Your task to perform on an android device: toggle javascript in the chrome app Image 0: 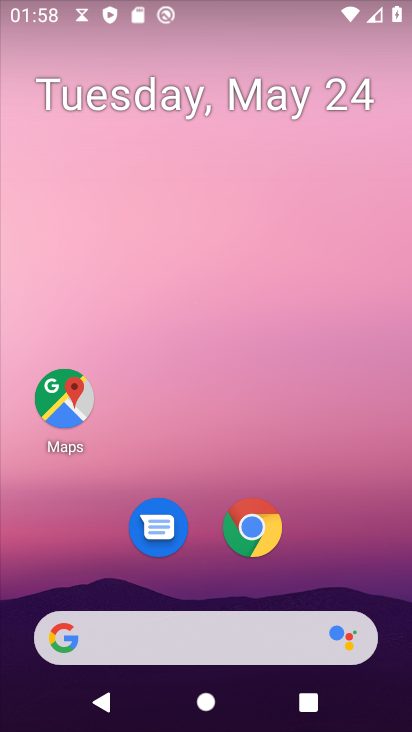
Step 0: press home button
Your task to perform on an android device: toggle javascript in the chrome app Image 1: 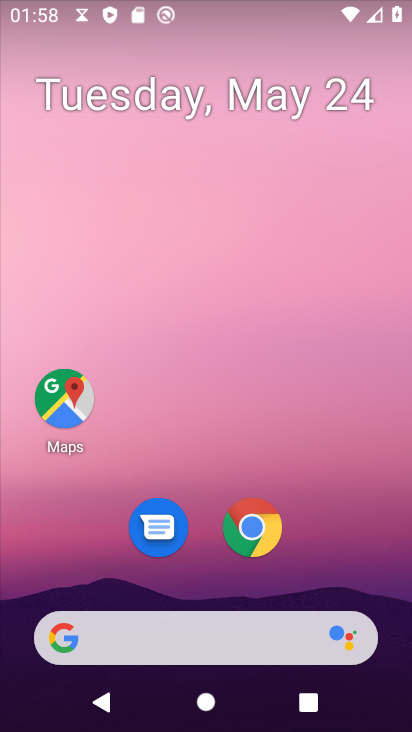
Step 1: click (243, 534)
Your task to perform on an android device: toggle javascript in the chrome app Image 2: 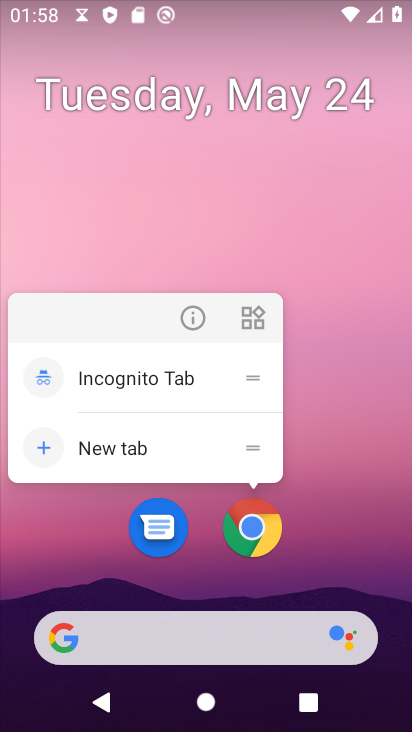
Step 2: click (264, 536)
Your task to perform on an android device: toggle javascript in the chrome app Image 3: 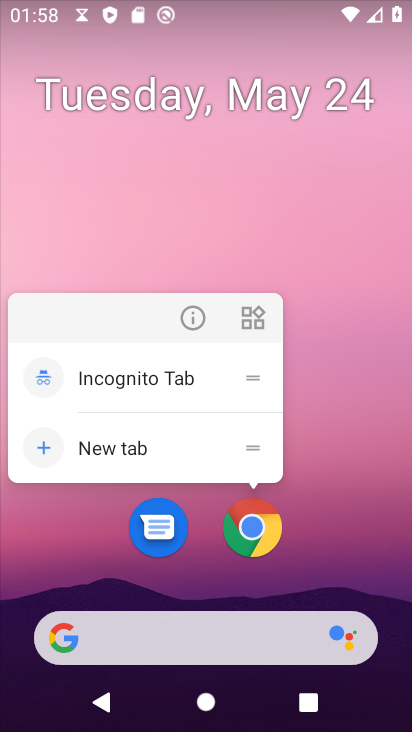
Step 3: click (254, 541)
Your task to perform on an android device: toggle javascript in the chrome app Image 4: 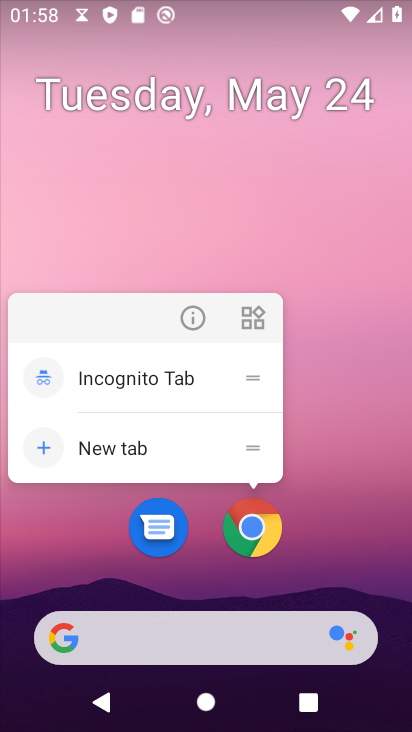
Step 4: click (252, 534)
Your task to perform on an android device: toggle javascript in the chrome app Image 5: 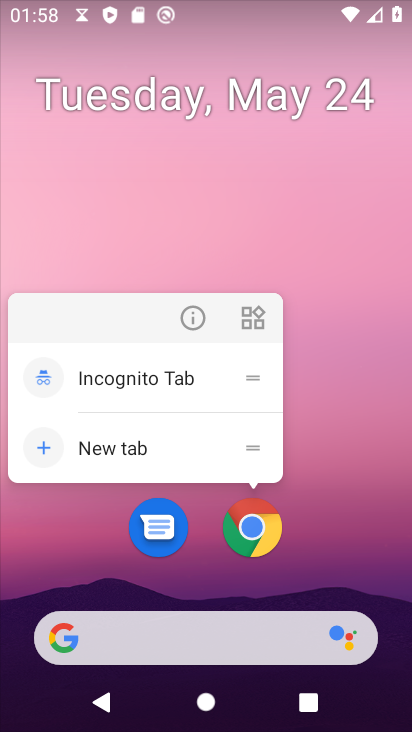
Step 5: click (249, 536)
Your task to perform on an android device: toggle javascript in the chrome app Image 6: 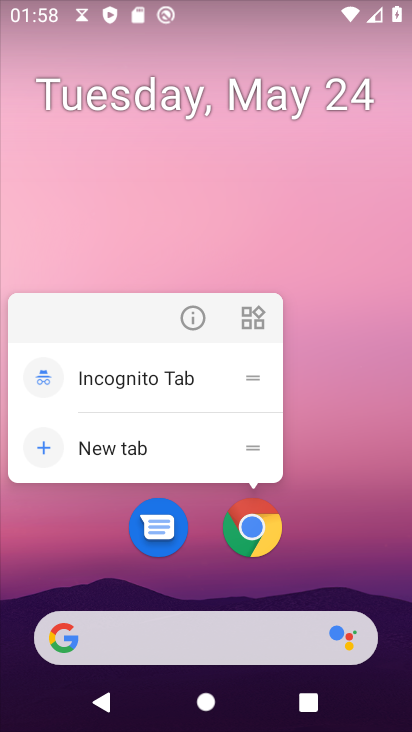
Step 6: click (247, 533)
Your task to perform on an android device: toggle javascript in the chrome app Image 7: 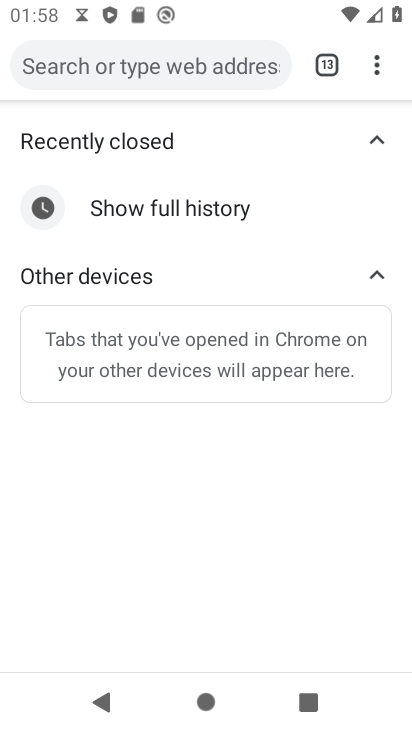
Step 7: drag from (372, 73) to (220, 544)
Your task to perform on an android device: toggle javascript in the chrome app Image 8: 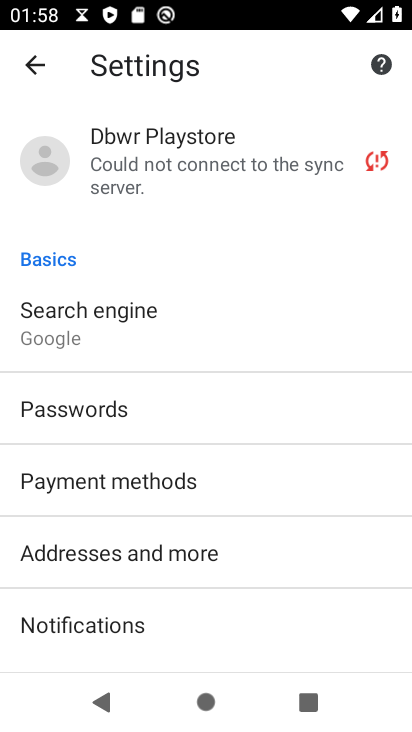
Step 8: drag from (203, 631) to (292, 188)
Your task to perform on an android device: toggle javascript in the chrome app Image 9: 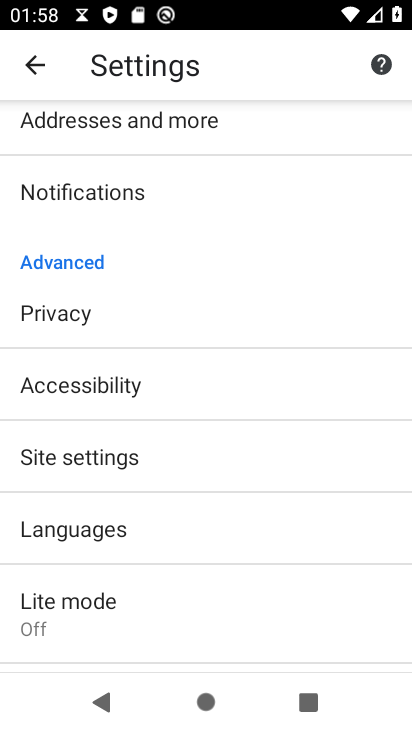
Step 9: click (134, 464)
Your task to perform on an android device: toggle javascript in the chrome app Image 10: 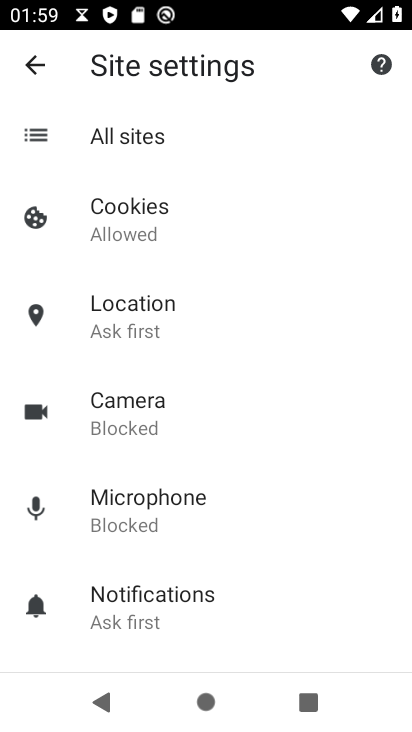
Step 10: drag from (205, 648) to (275, 240)
Your task to perform on an android device: toggle javascript in the chrome app Image 11: 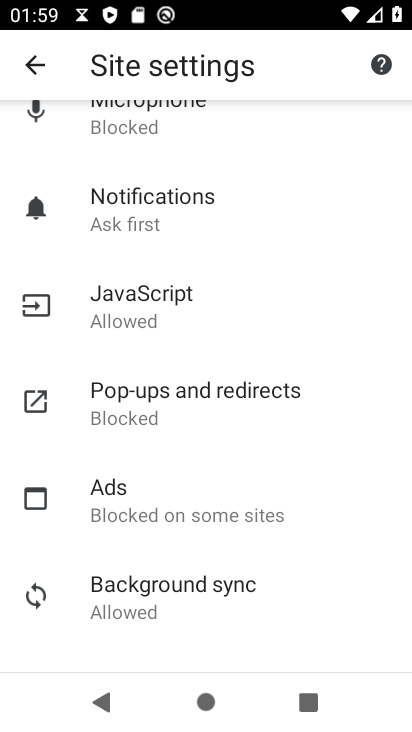
Step 11: click (128, 325)
Your task to perform on an android device: toggle javascript in the chrome app Image 12: 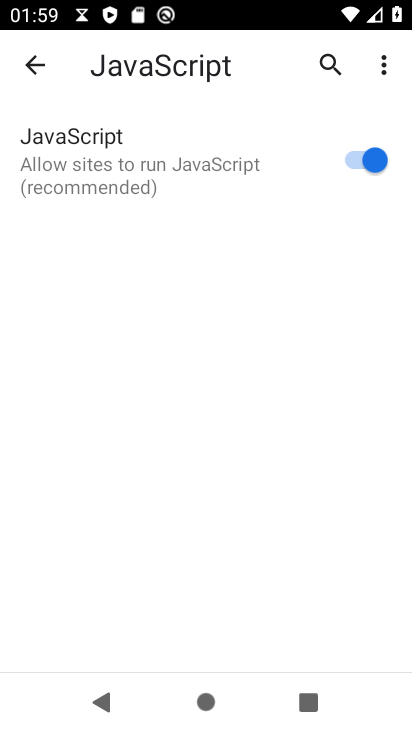
Step 12: click (352, 155)
Your task to perform on an android device: toggle javascript in the chrome app Image 13: 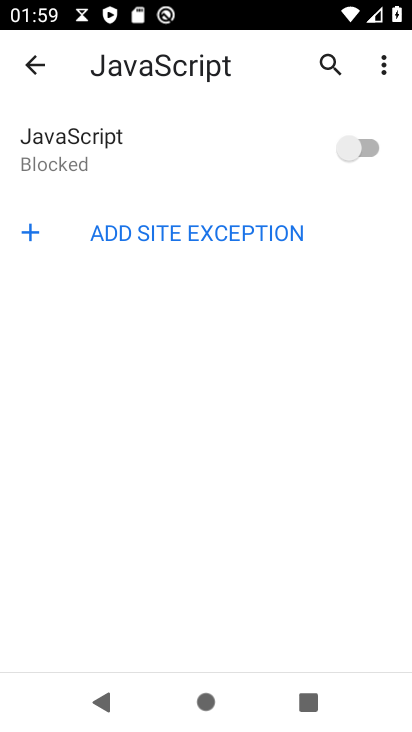
Step 13: task complete